Your task to perform on an android device: turn on priority inbox in the gmail app Image 0: 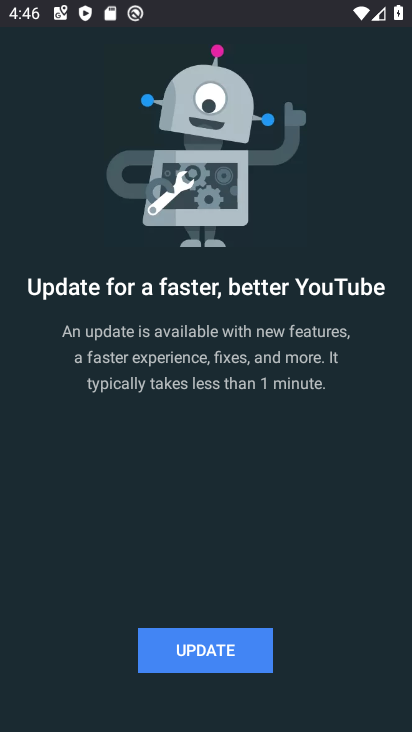
Step 0: click (377, 476)
Your task to perform on an android device: turn on priority inbox in the gmail app Image 1: 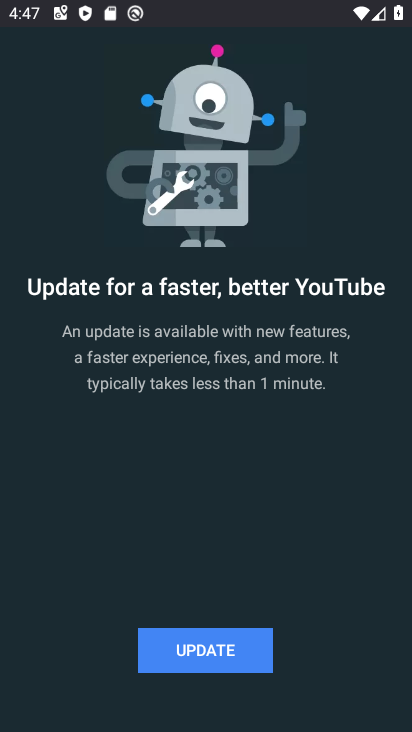
Step 1: click (308, 504)
Your task to perform on an android device: turn on priority inbox in the gmail app Image 2: 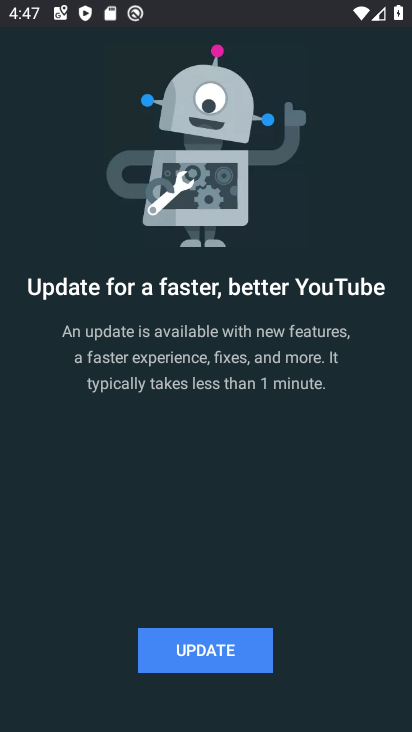
Step 2: drag from (233, 570) to (252, 50)
Your task to perform on an android device: turn on priority inbox in the gmail app Image 3: 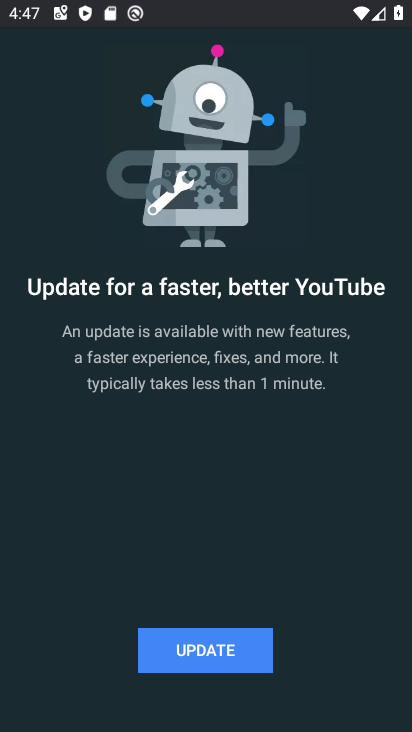
Step 3: drag from (231, 510) to (232, 219)
Your task to perform on an android device: turn on priority inbox in the gmail app Image 4: 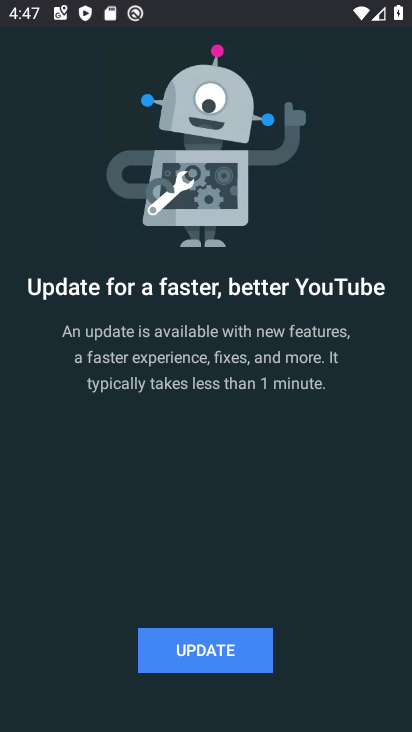
Step 4: click (293, 329)
Your task to perform on an android device: turn on priority inbox in the gmail app Image 5: 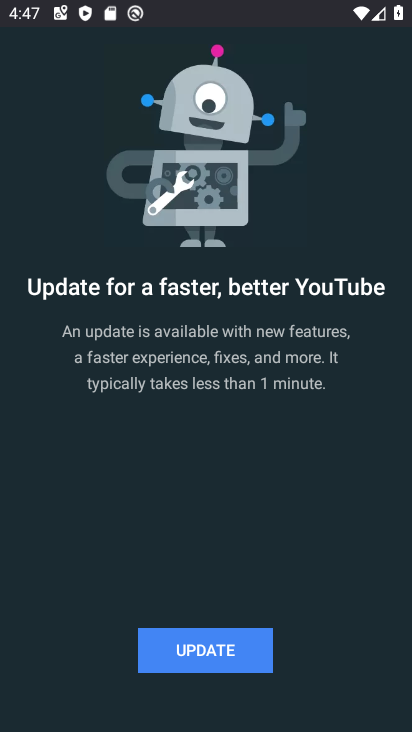
Step 5: click (277, 323)
Your task to perform on an android device: turn on priority inbox in the gmail app Image 6: 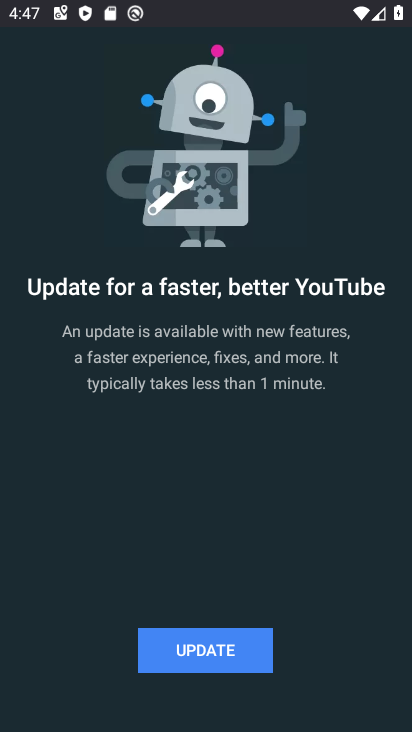
Step 6: click (221, 316)
Your task to perform on an android device: turn on priority inbox in the gmail app Image 7: 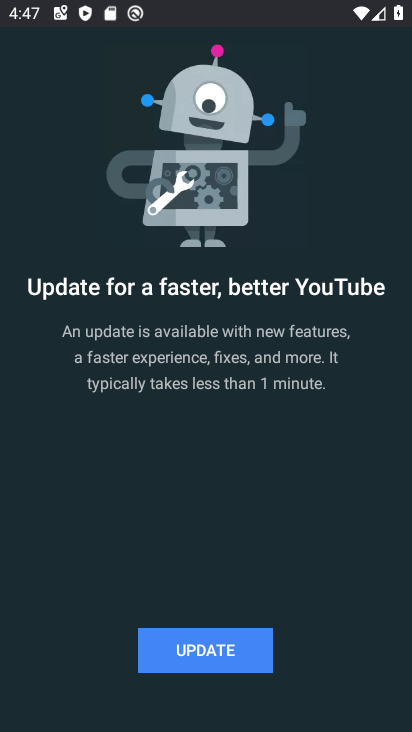
Step 7: drag from (149, 296) to (80, 284)
Your task to perform on an android device: turn on priority inbox in the gmail app Image 8: 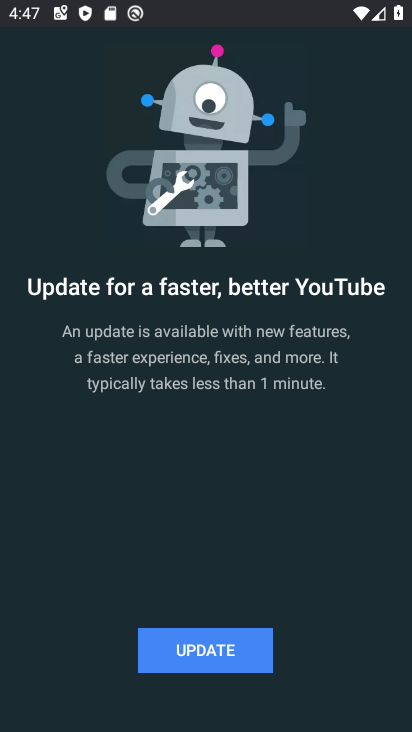
Step 8: click (216, 291)
Your task to perform on an android device: turn on priority inbox in the gmail app Image 9: 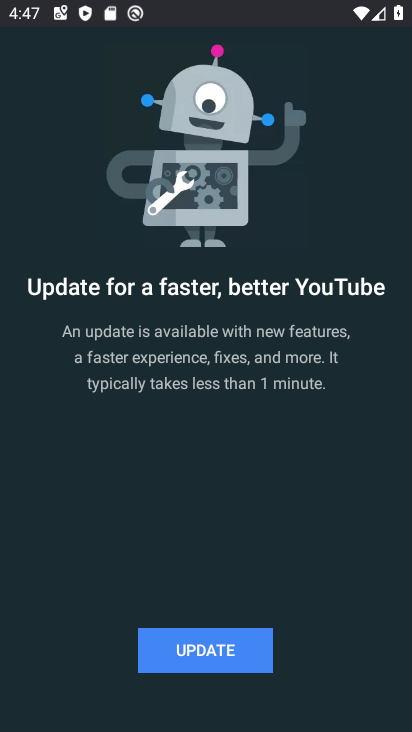
Step 9: click (287, 287)
Your task to perform on an android device: turn on priority inbox in the gmail app Image 10: 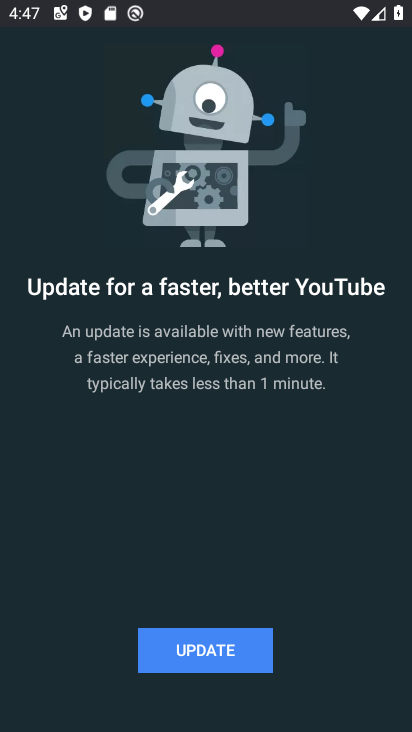
Step 10: click (312, 285)
Your task to perform on an android device: turn on priority inbox in the gmail app Image 11: 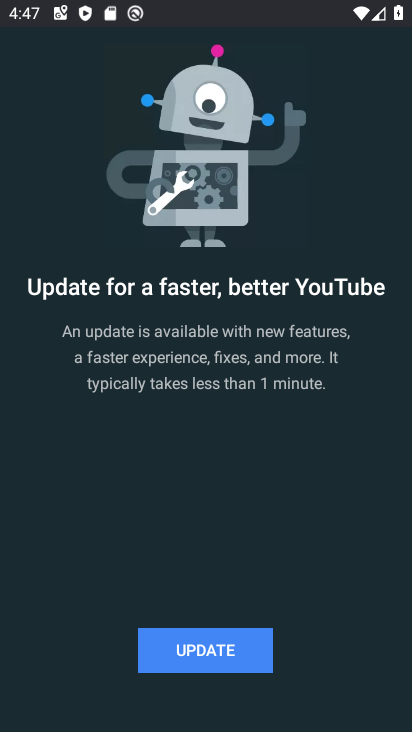
Step 11: click (342, 578)
Your task to perform on an android device: turn on priority inbox in the gmail app Image 12: 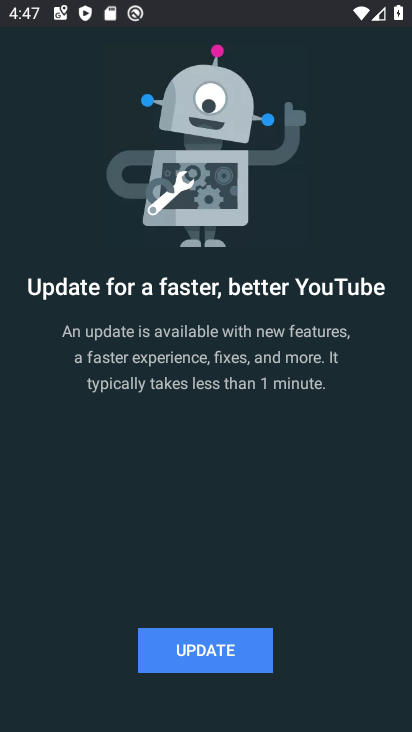
Step 12: click (269, 464)
Your task to perform on an android device: turn on priority inbox in the gmail app Image 13: 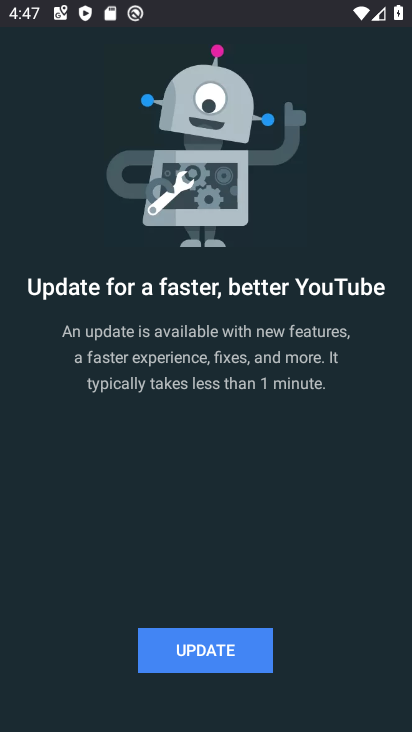
Step 13: click (169, 515)
Your task to perform on an android device: turn on priority inbox in the gmail app Image 14: 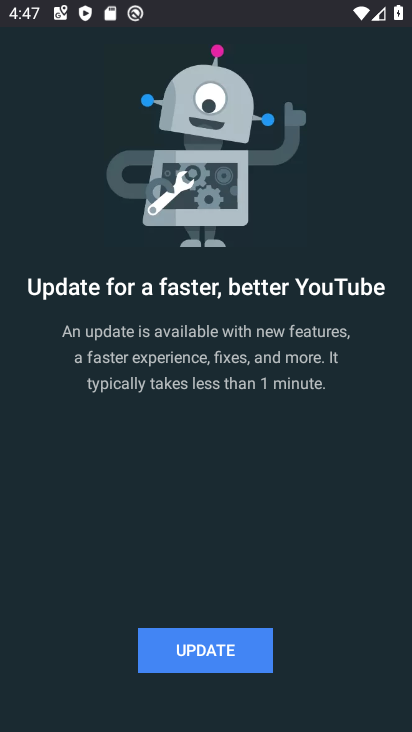
Step 14: click (210, 389)
Your task to perform on an android device: turn on priority inbox in the gmail app Image 15: 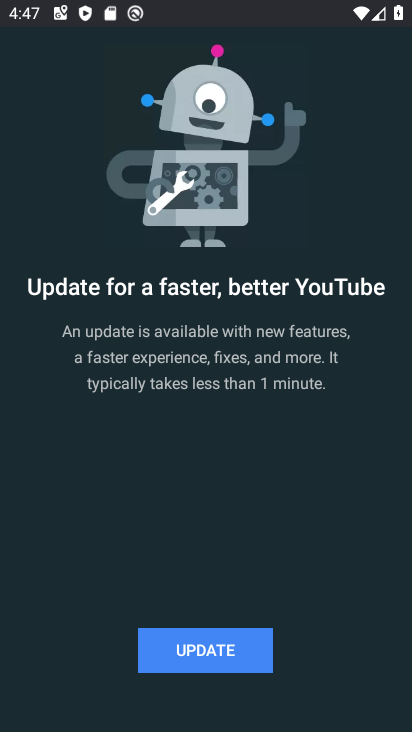
Step 15: click (207, 377)
Your task to perform on an android device: turn on priority inbox in the gmail app Image 16: 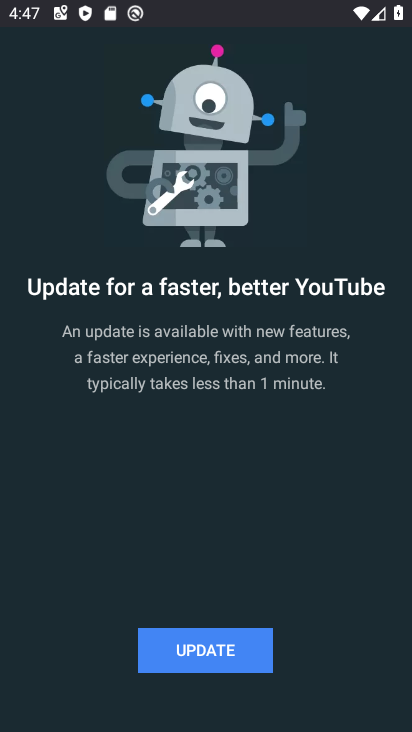
Step 16: press home button
Your task to perform on an android device: turn on priority inbox in the gmail app Image 17: 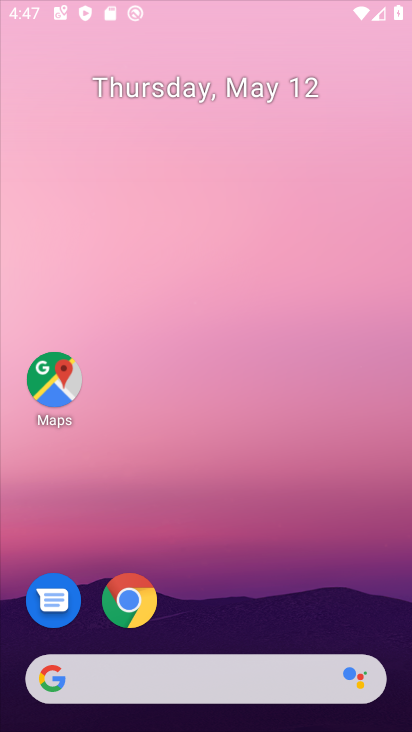
Step 17: drag from (170, 619) to (234, 226)
Your task to perform on an android device: turn on priority inbox in the gmail app Image 18: 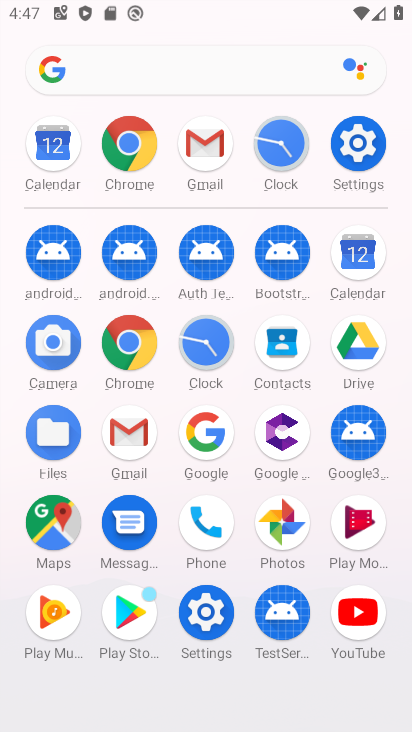
Step 18: click (120, 419)
Your task to perform on an android device: turn on priority inbox in the gmail app Image 19: 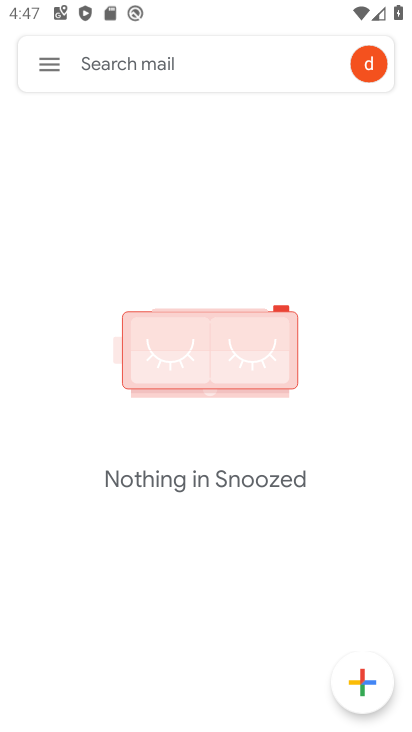
Step 19: click (51, 65)
Your task to perform on an android device: turn on priority inbox in the gmail app Image 20: 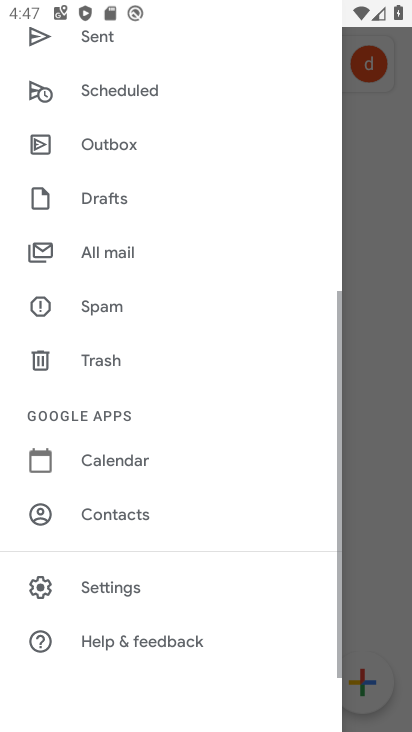
Step 20: drag from (174, 621) to (209, 196)
Your task to perform on an android device: turn on priority inbox in the gmail app Image 21: 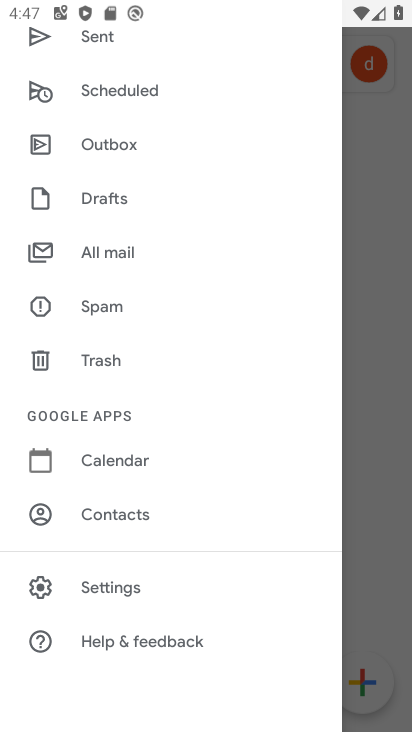
Step 21: click (109, 580)
Your task to perform on an android device: turn on priority inbox in the gmail app Image 22: 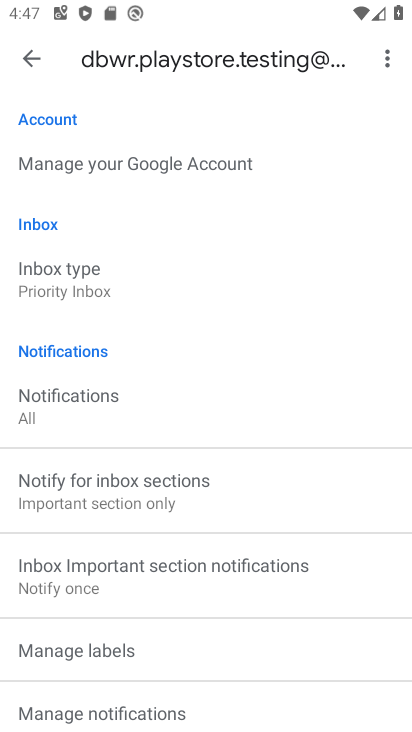
Step 22: drag from (204, 641) to (249, 94)
Your task to perform on an android device: turn on priority inbox in the gmail app Image 23: 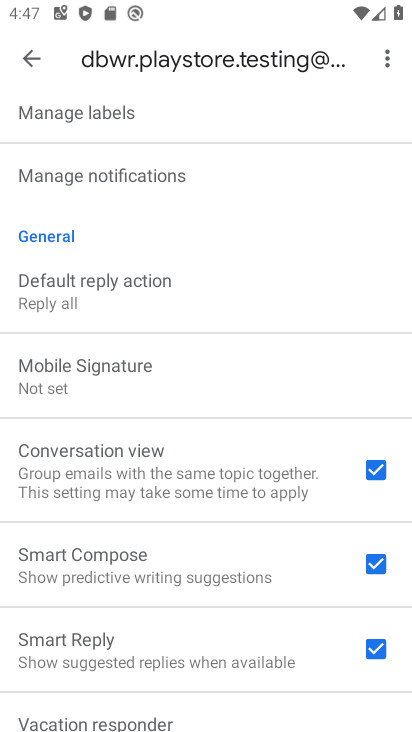
Step 23: drag from (262, 605) to (301, 272)
Your task to perform on an android device: turn on priority inbox in the gmail app Image 24: 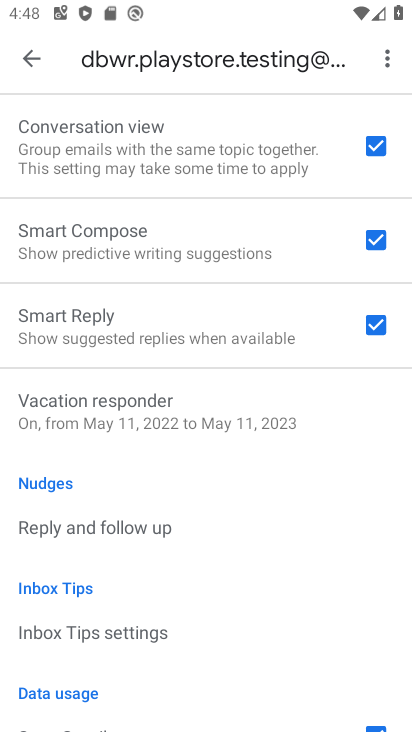
Step 24: drag from (285, 237) to (311, 728)
Your task to perform on an android device: turn on priority inbox in the gmail app Image 25: 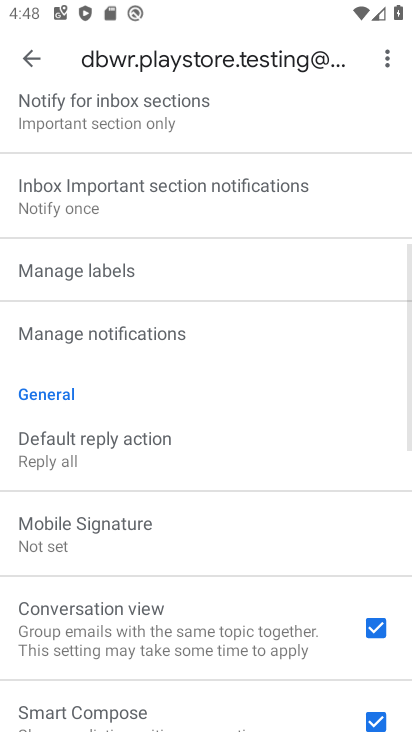
Step 25: drag from (205, 252) to (294, 725)
Your task to perform on an android device: turn on priority inbox in the gmail app Image 26: 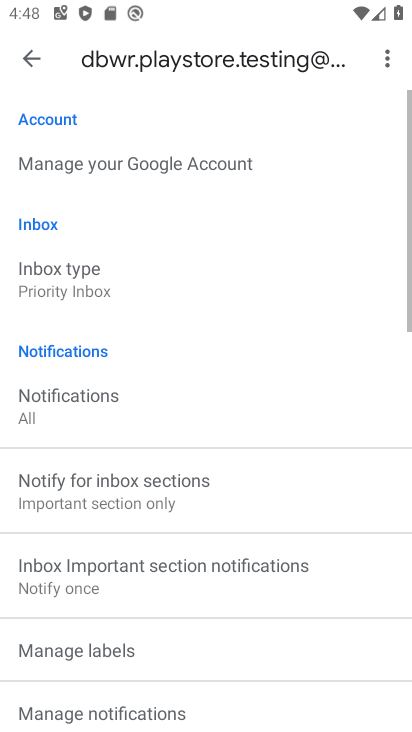
Step 26: drag from (168, 289) to (281, 696)
Your task to perform on an android device: turn on priority inbox in the gmail app Image 27: 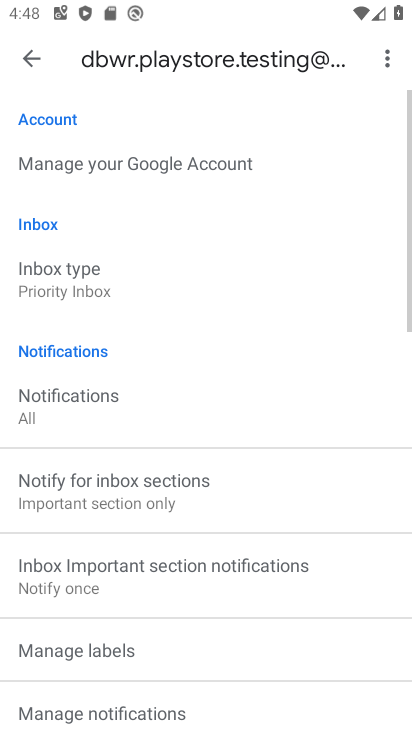
Step 27: click (120, 294)
Your task to perform on an android device: turn on priority inbox in the gmail app Image 28: 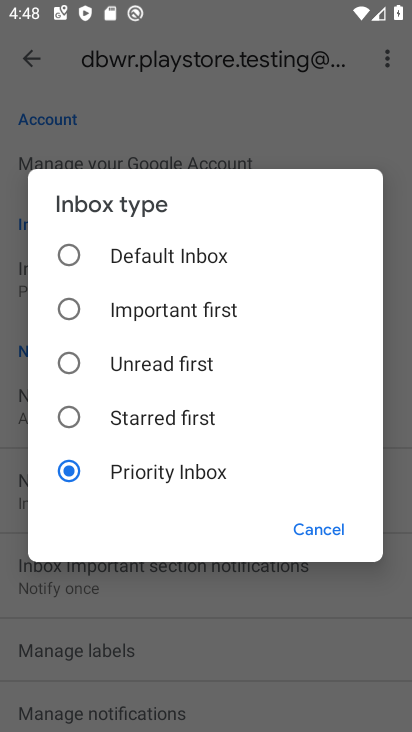
Step 28: task complete